Your task to perform on an android device: install app "Adobe Acrobat Reader: Edit PDF" Image 0: 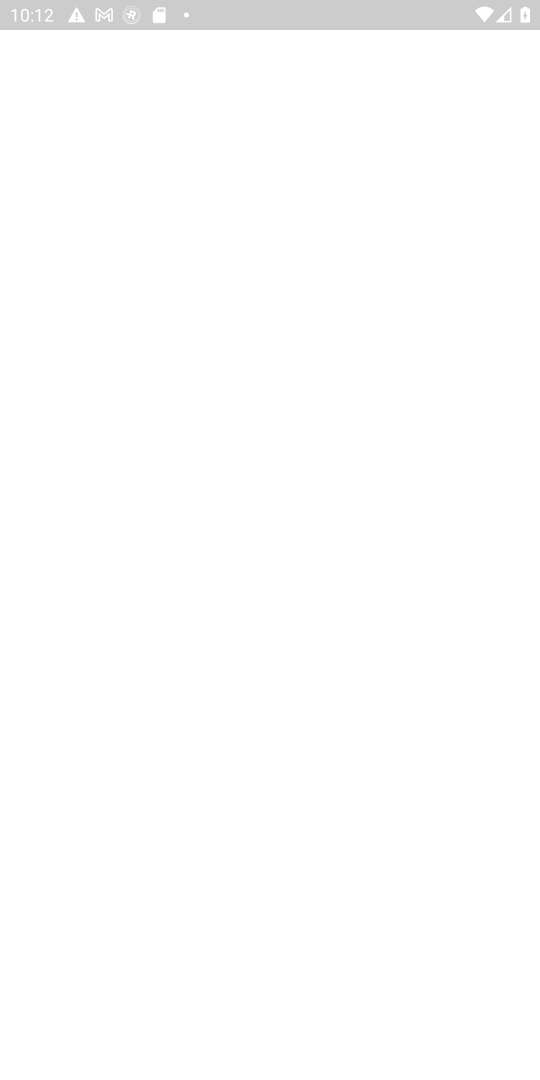
Step 0: press home button
Your task to perform on an android device: install app "Adobe Acrobat Reader: Edit PDF" Image 1: 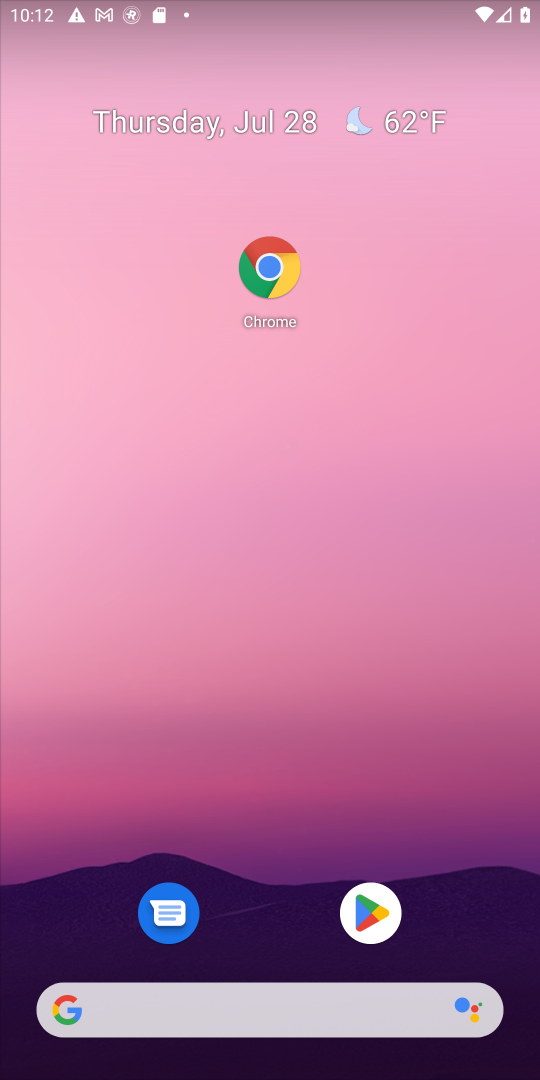
Step 1: click (360, 904)
Your task to perform on an android device: install app "Adobe Acrobat Reader: Edit PDF" Image 2: 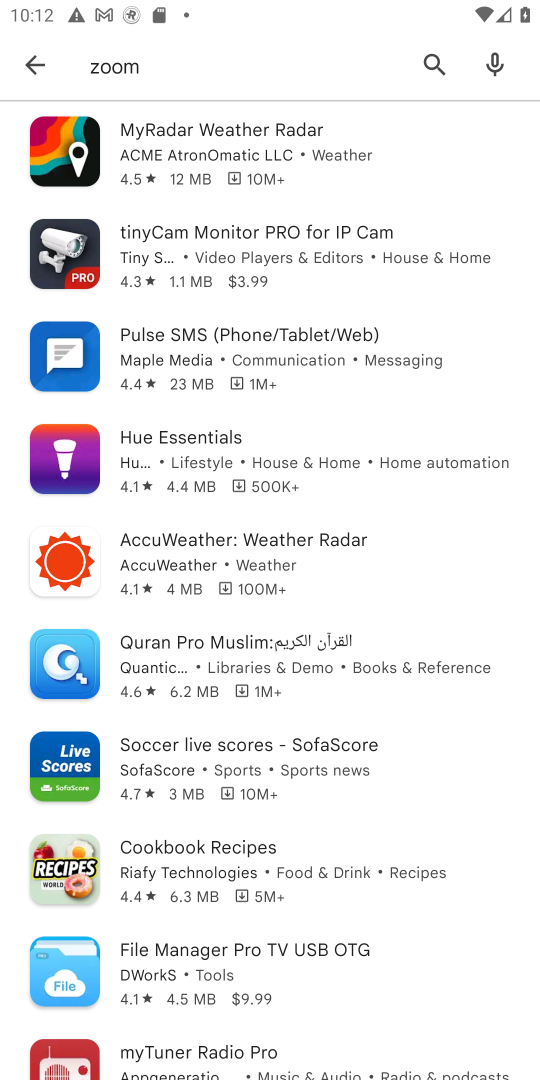
Step 2: click (433, 68)
Your task to perform on an android device: install app "Adobe Acrobat Reader: Edit PDF" Image 3: 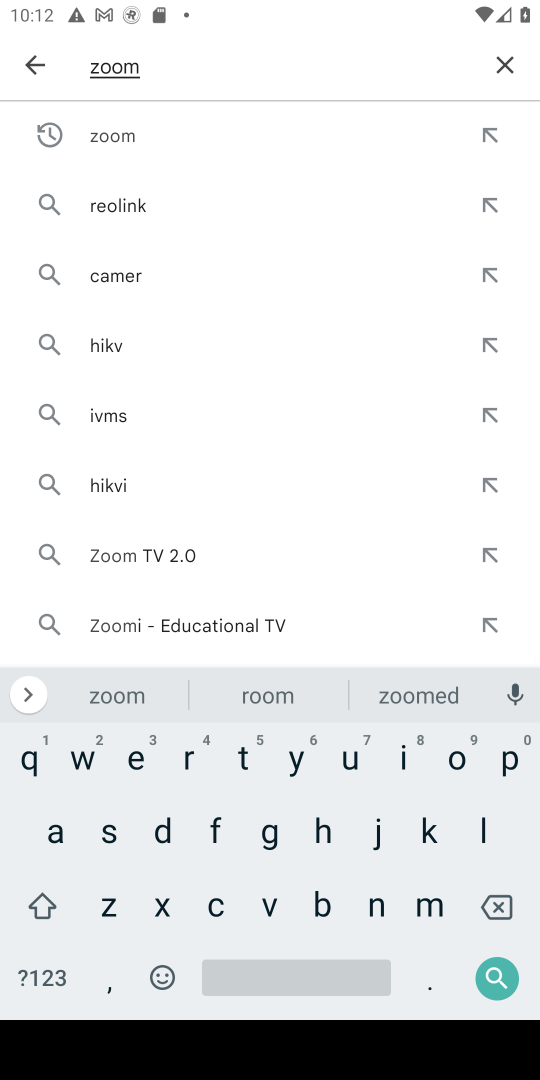
Step 3: click (502, 52)
Your task to perform on an android device: install app "Adobe Acrobat Reader: Edit PDF" Image 4: 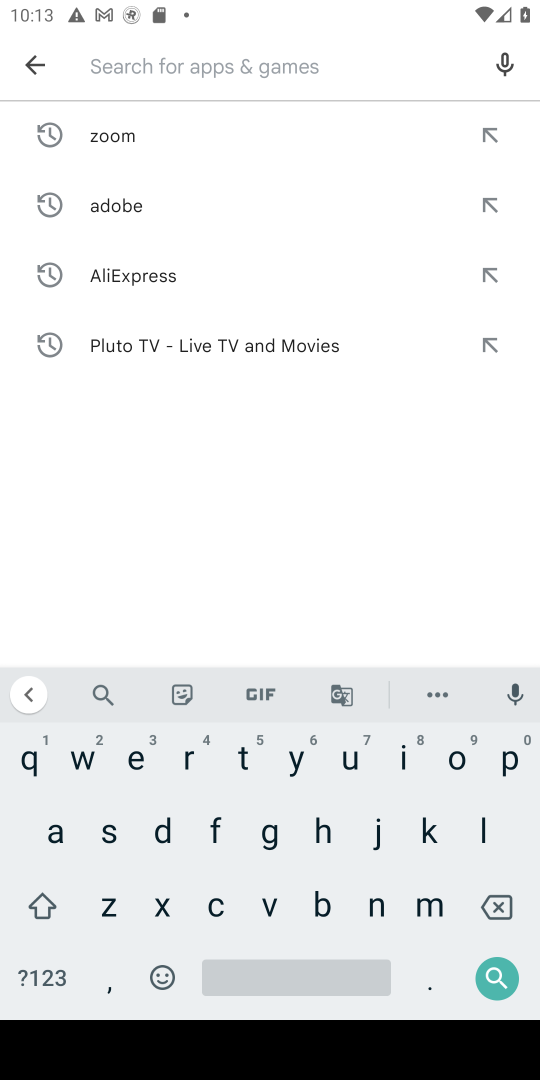
Step 4: click (137, 205)
Your task to perform on an android device: install app "Adobe Acrobat Reader: Edit PDF" Image 5: 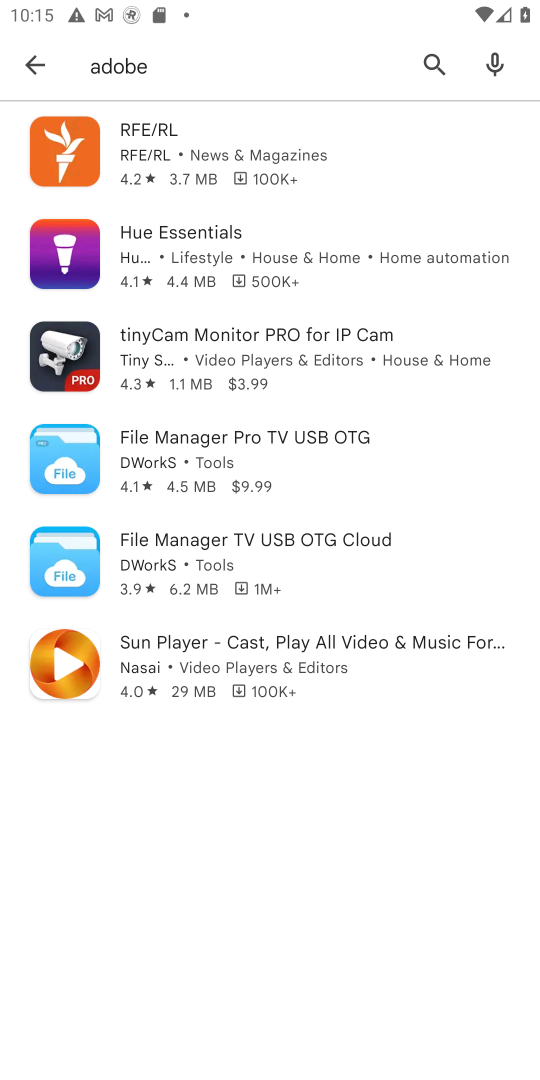
Step 5: task complete